Your task to perform on an android device: clear history in the chrome app Image 0: 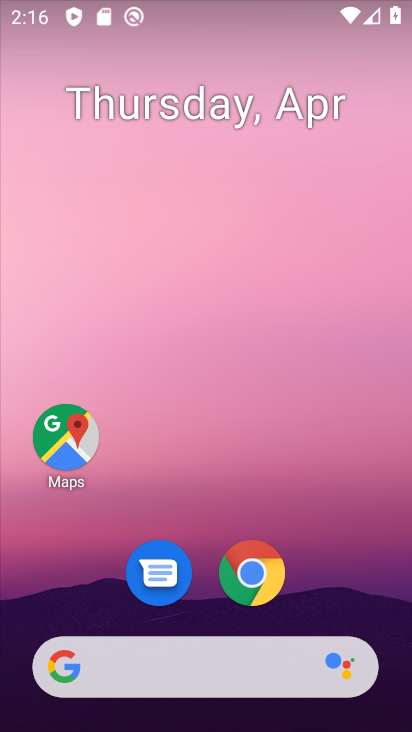
Step 0: drag from (342, 587) to (271, 103)
Your task to perform on an android device: clear history in the chrome app Image 1: 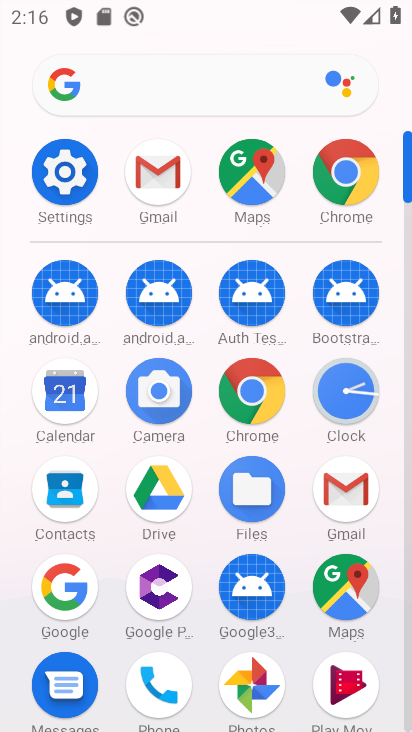
Step 1: click (251, 383)
Your task to perform on an android device: clear history in the chrome app Image 2: 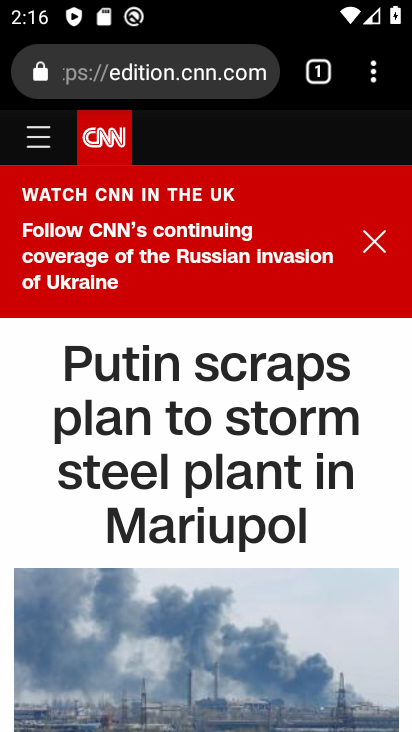
Step 2: press back button
Your task to perform on an android device: clear history in the chrome app Image 3: 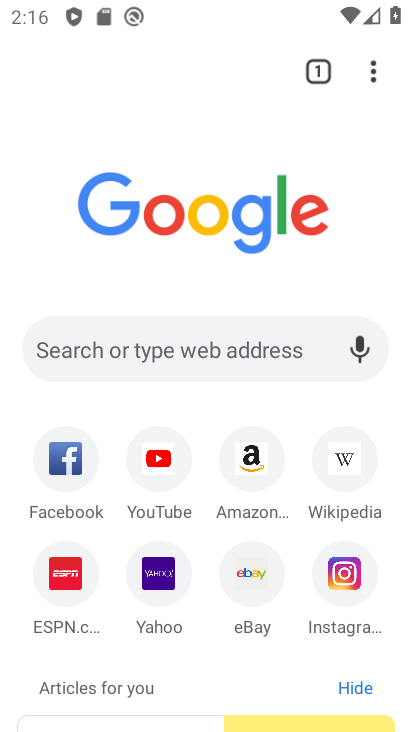
Step 3: click (373, 68)
Your task to perform on an android device: clear history in the chrome app Image 4: 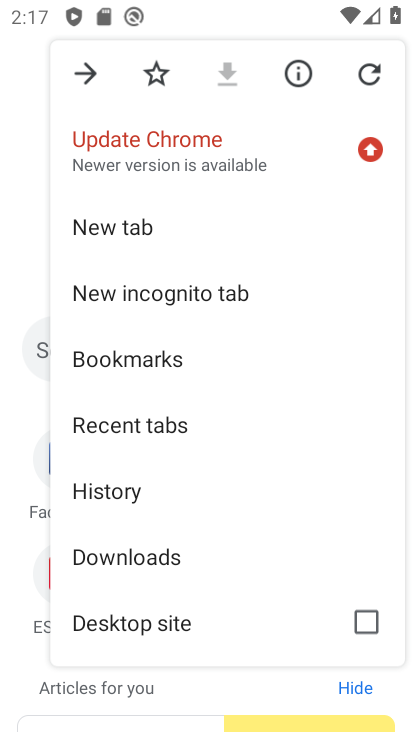
Step 4: click (165, 486)
Your task to perform on an android device: clear history in the chrome app Image 5: 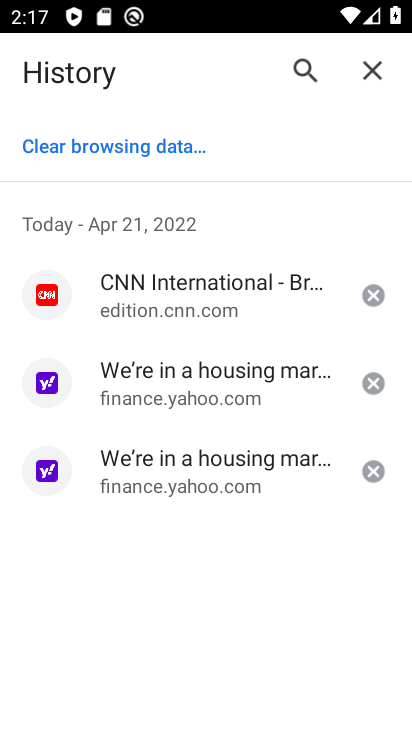
Step 5: click (157, 150)
Your task to perform on an android device: clear history in the chrome app Image 6: 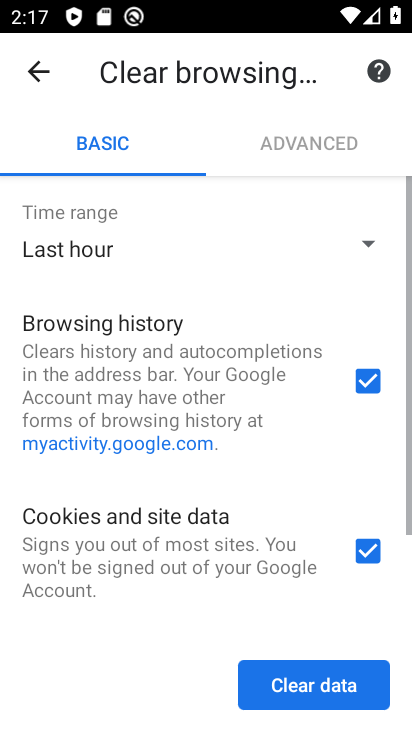
Step 6: click (290, 684)
Your task to perform on an android device: clear history in the chrome app Image 7: 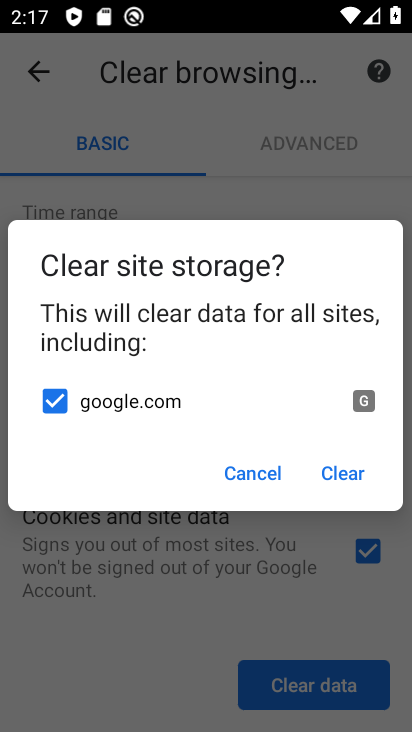
Step 7: click (332, 484)
Your task to perform on an android device: clear history in the chrome app Image 8: 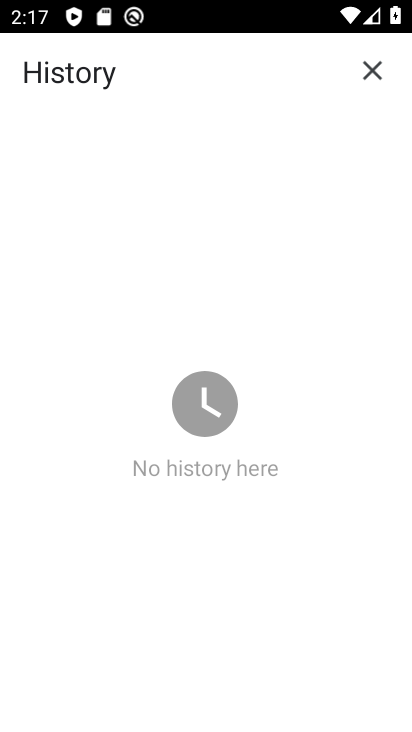
Step 8: task complete